Your task to perform on an android device: Open sound settings Image 0: 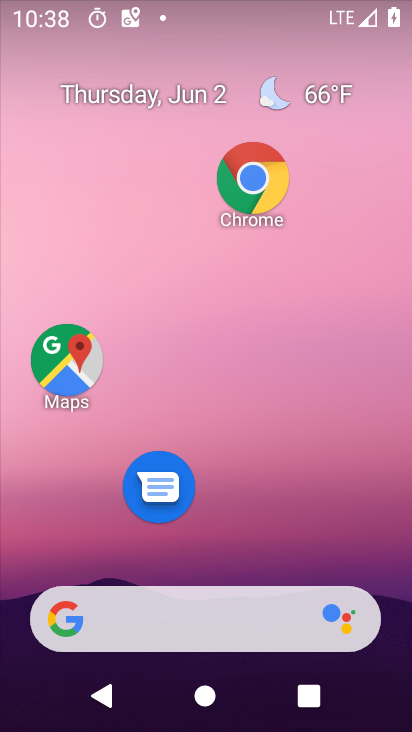
Step 0: drag from (233, 729) to (237, 118)
Your task to perform on an android device: Open sound settings Image 1: 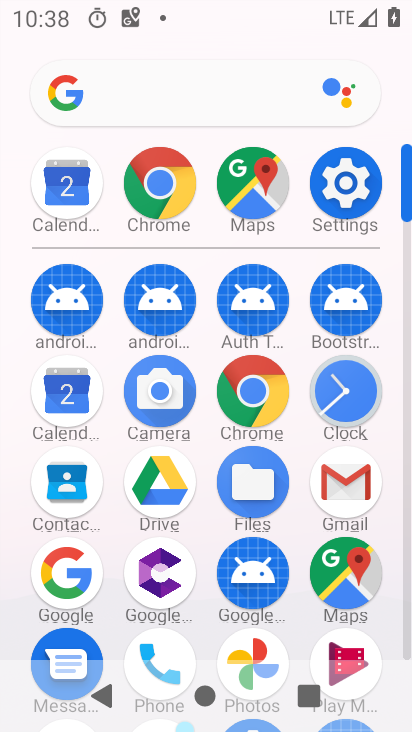
Step 1: click (338, 180)
Your task to perform on an android device: Open sound settings Image 2: 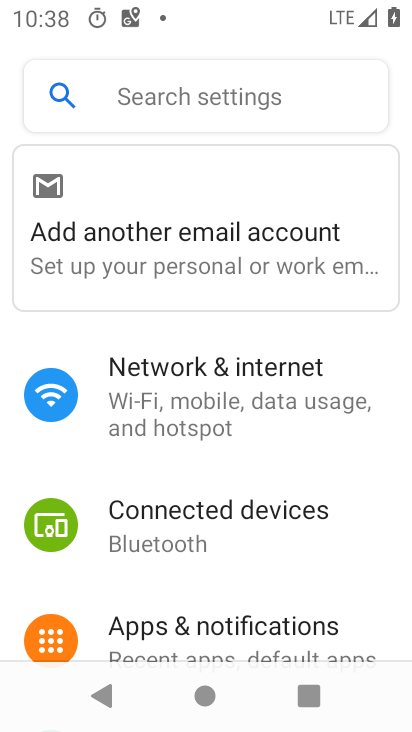
Step 2: drag from (224, 647) to (225, 283)
Your task to perform on an android device: Open sound settings Image 3: 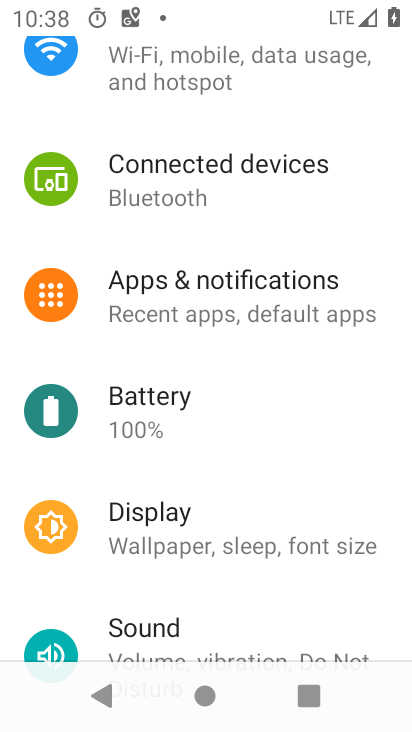
Step 3: drag from (214, 642) to (204, 314)
Your task to perform on an android device: Open sound settings Image 4: 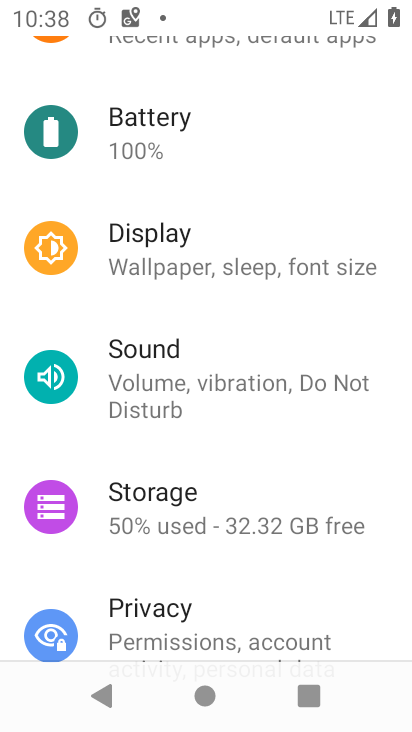
Step 4: click (151, 379)
Your task to perform on an android device: Open sound settings Image 5: 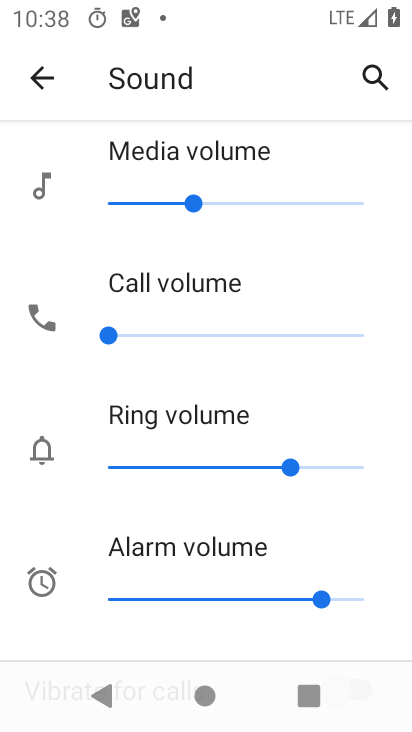
Step 5: task complete